Your task to perform on an android device: Open Google Chrome and open the bookmarks view Image 0: 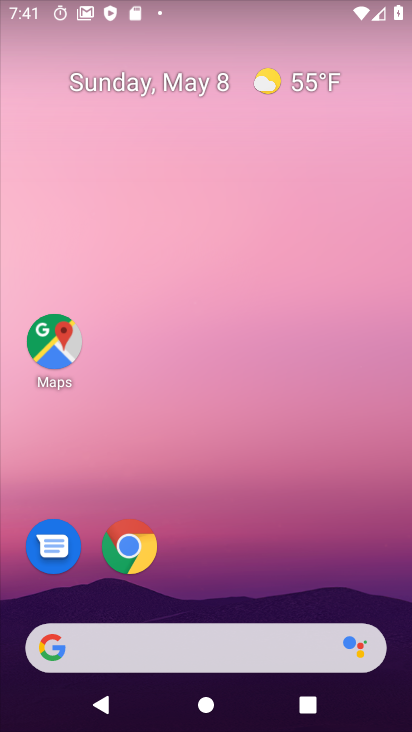
Step 0: drag from (248, 567) to (235, 57)
Your task to perform on an android device: Open Google Chrome and open the bookmarks view Image 1: 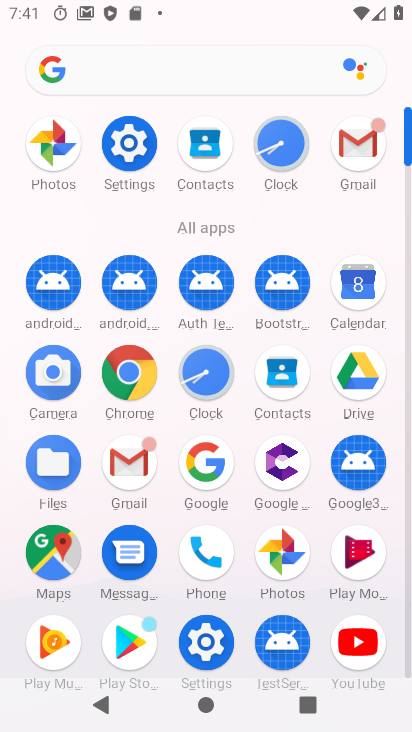
Step 1: click (142, 377)
Your task to perform on an android device: Open Google Chrome and open the bookmarks view Image 2: 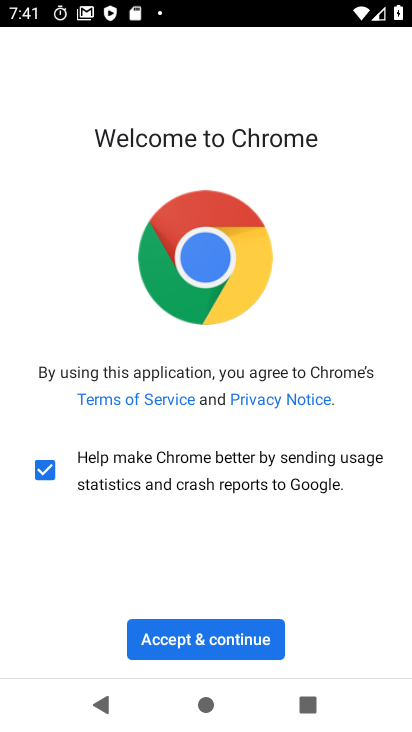
Step 2: click (204, 638)
Your task to perform on an android device: Open Google Chrome and open the bookmarks view Image 3: 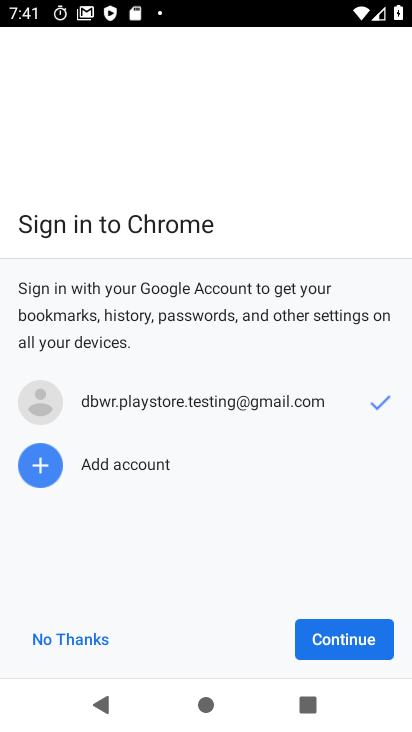
Step 3: click (335, 640)
Your task to perform on an android device: Open Google Chrome and open the bookmarks view Image 4: 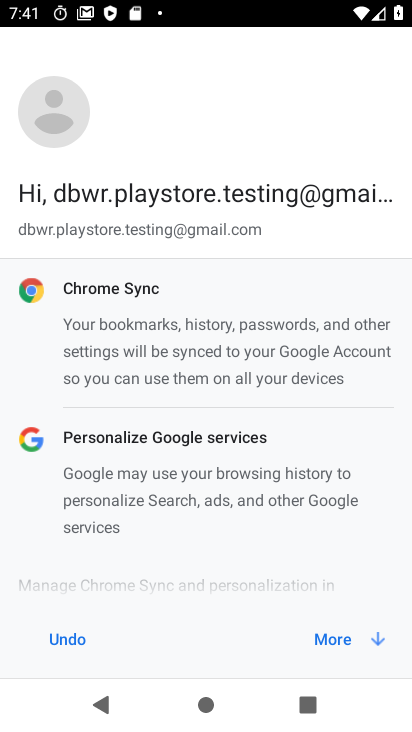
Step 4: click (335, 642)
Your task to perform on an android device: Open Google Chrome and open the bookmarks view Image 5: 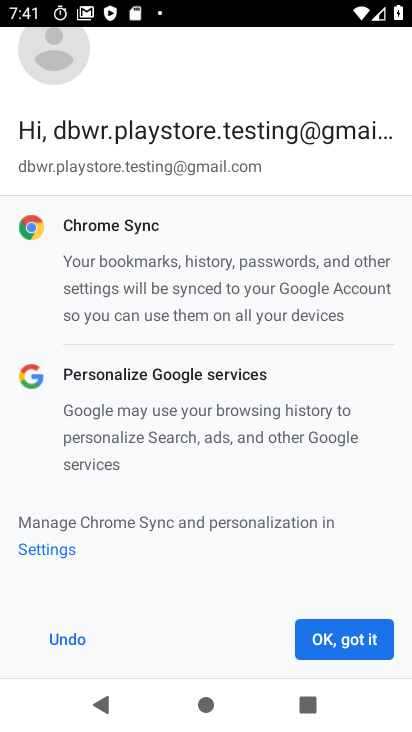
Step 5: click (335, 642)
Your task to perform on an android device: Open Google Chrome and open the bookmarks view Image 6: 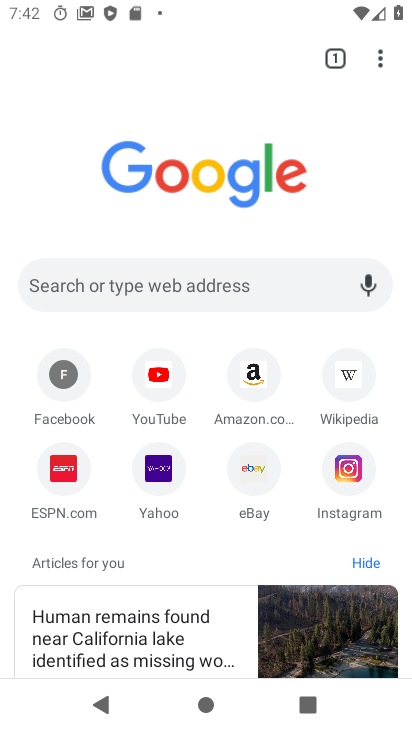
Step 6: task complete